Your task to perform on an android device: change the clock display to show seconds Image 0: 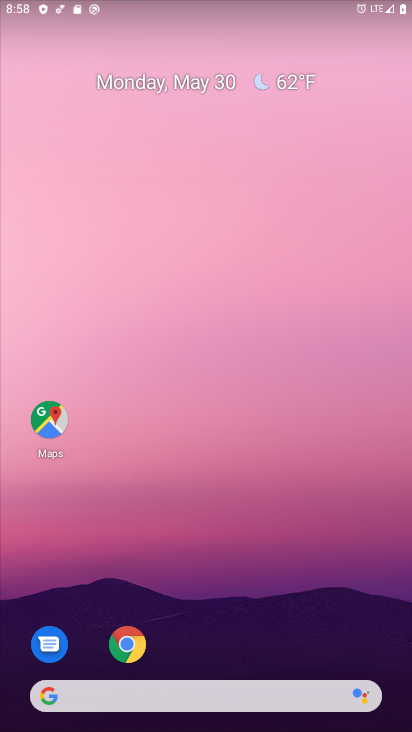
Step 0: drag from (377, 647) to (320, 235)
Your task to perform on an android device: change the clock display to show seconds Image 1: 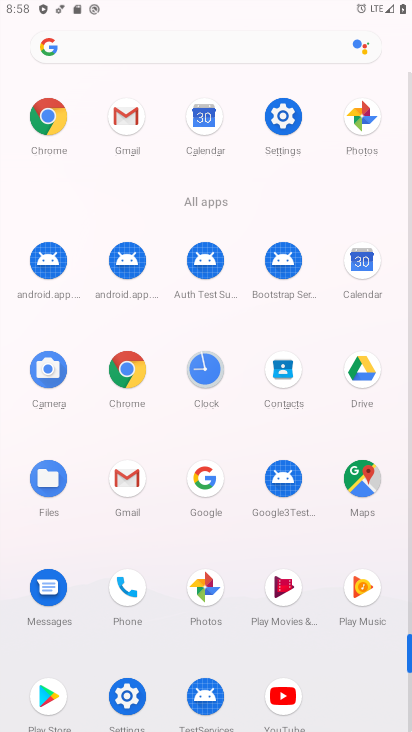
Step 1: click (204, 366)
Your task to perform on an android device: change the clock display to show seconds Image 2: 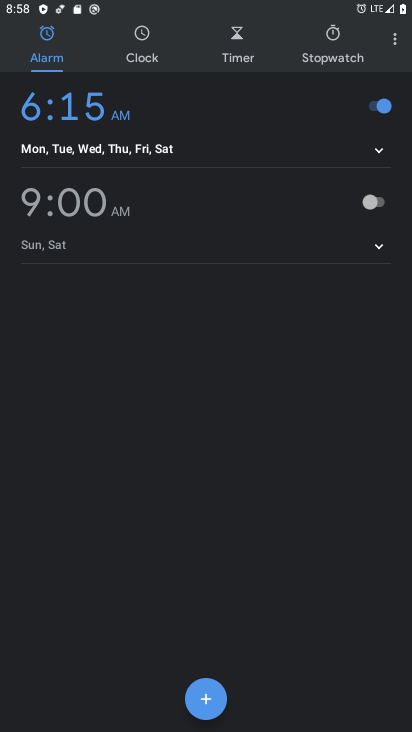
Step 2: click (394, 44)
Your task to perform on an android device: change the clock display to show seconds Image 3: 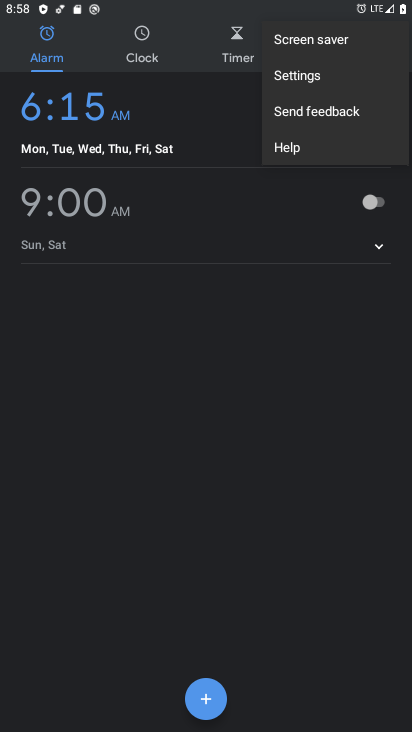
Step 3: click (303, 73)
Your task to perform on an android device: change the clock display to show seconds Image 4: 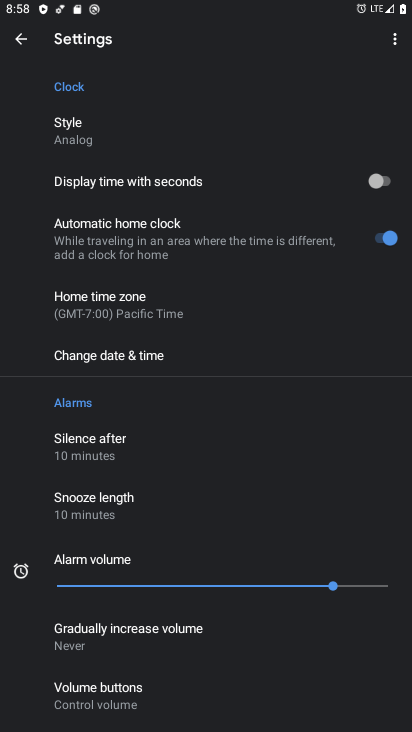
Step 4: click (388, 179)
Your task to perform on an android device: change the clock display to show seconds Image 5: 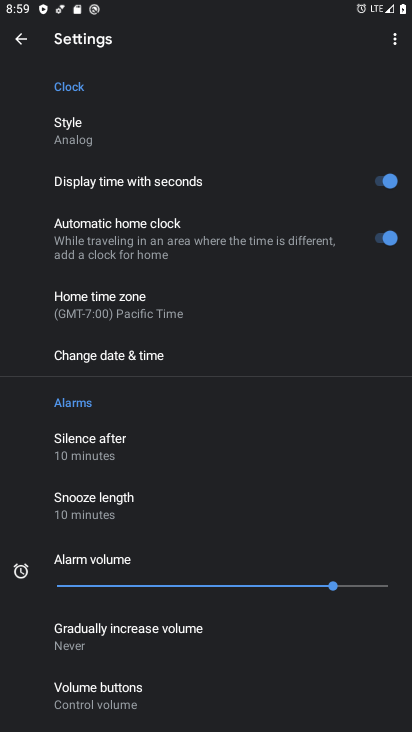
Step 5: task complete